Your task to perform on an android device: Searchfor good French restaurants Image 0: 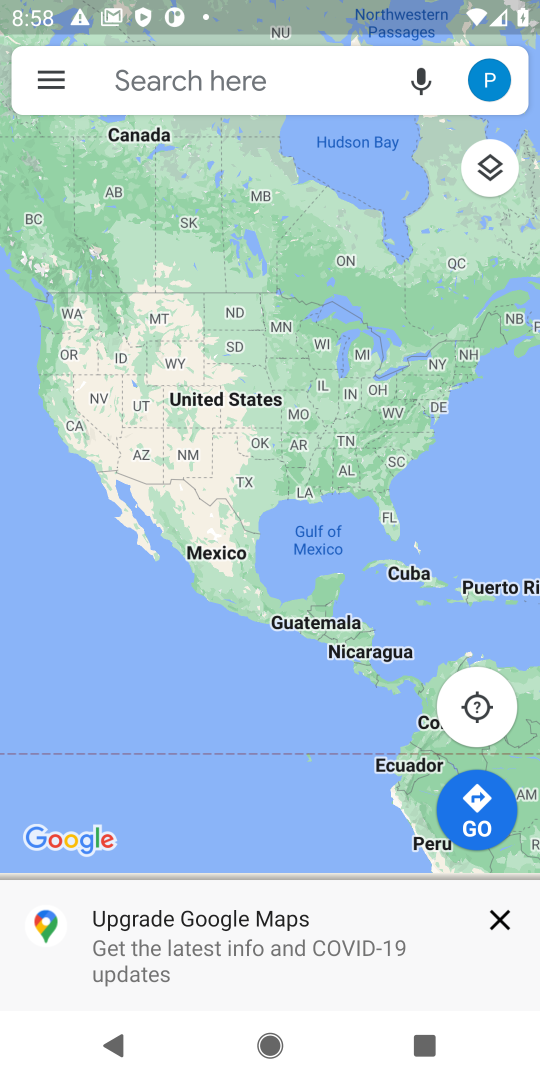
Step 0: press home button
Your task to perform on an android device: Searchfor good French restaurants Image 1: 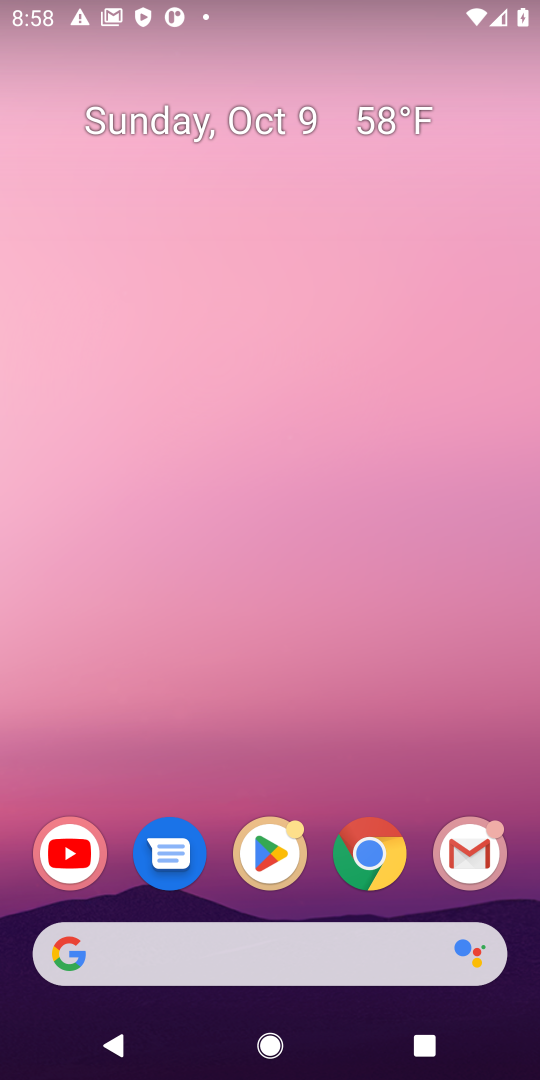
Step 1: click (362, 849)
Your task to perform on an android device: Searchfor good French restaurants Image 2: 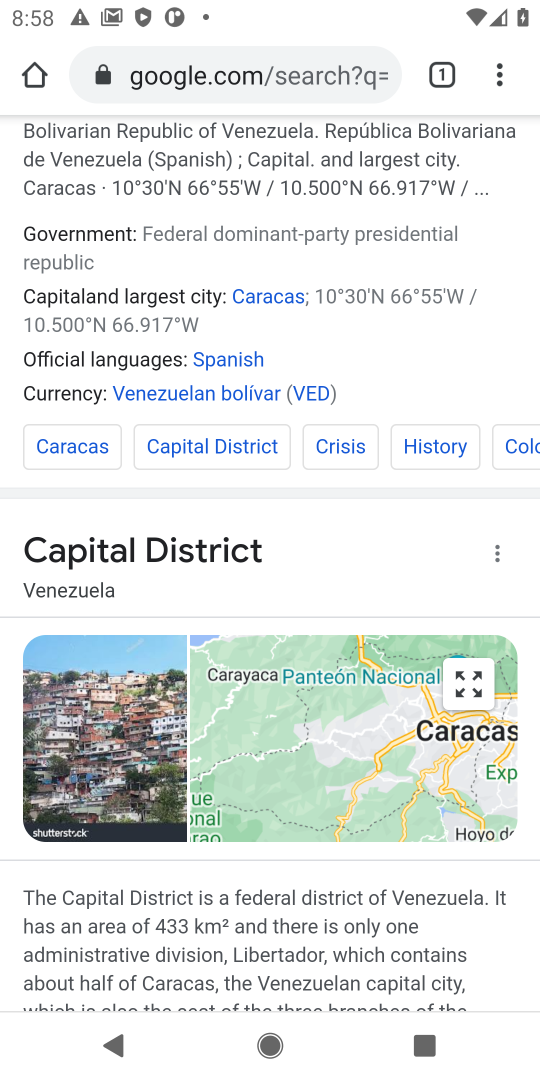
Step 2: click (199, 86)
Your task to perform on an android device: Searchfor good French restaurants Image 3: 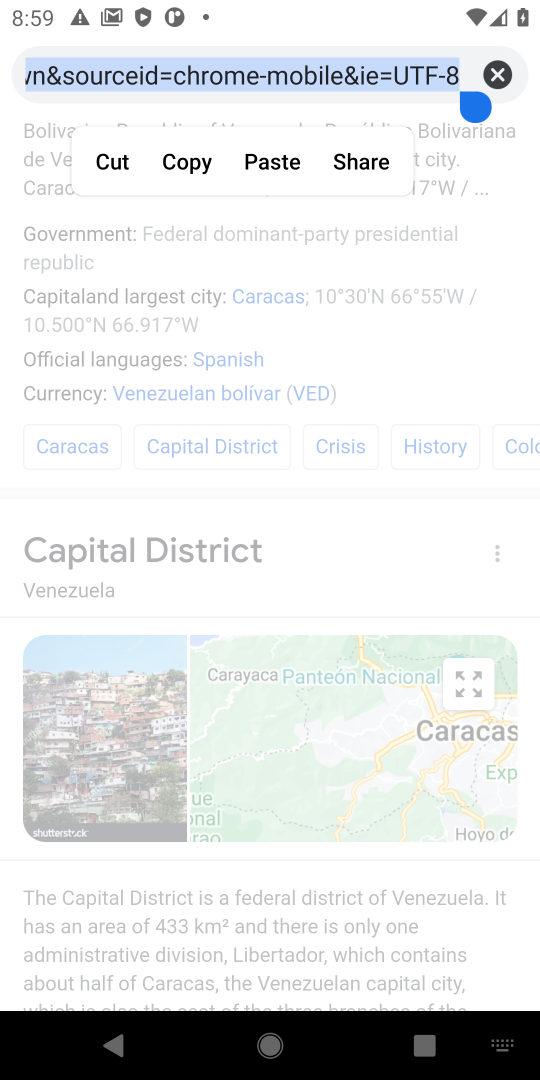
Step 3: type "good french restaurants"
Your task to perform on an android device: Searchfor good French restaurants Image 4: 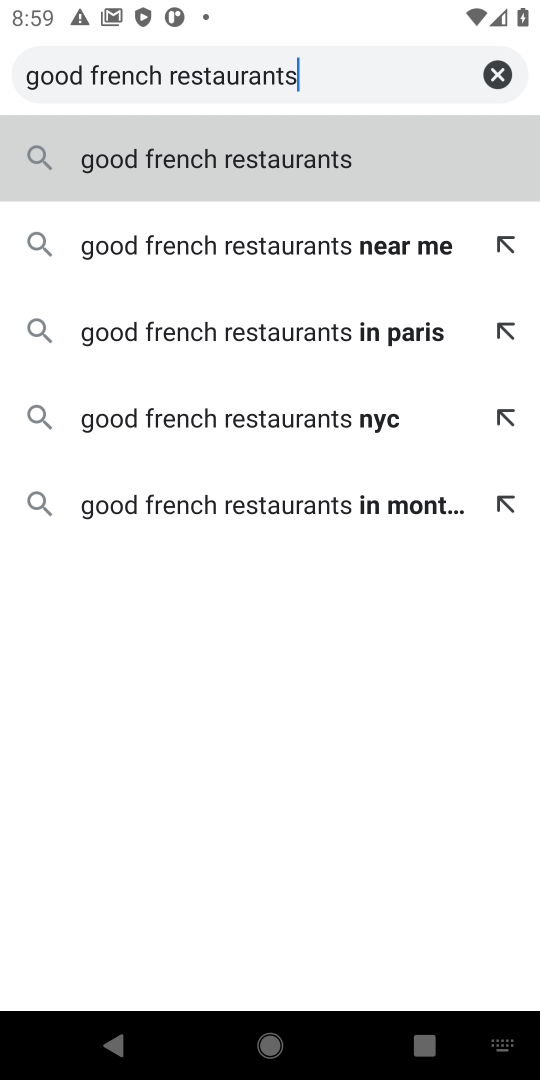
Step 4: click (429, 189)
Your task to perform on an android device: Searchfor good French restaurants Image 5: 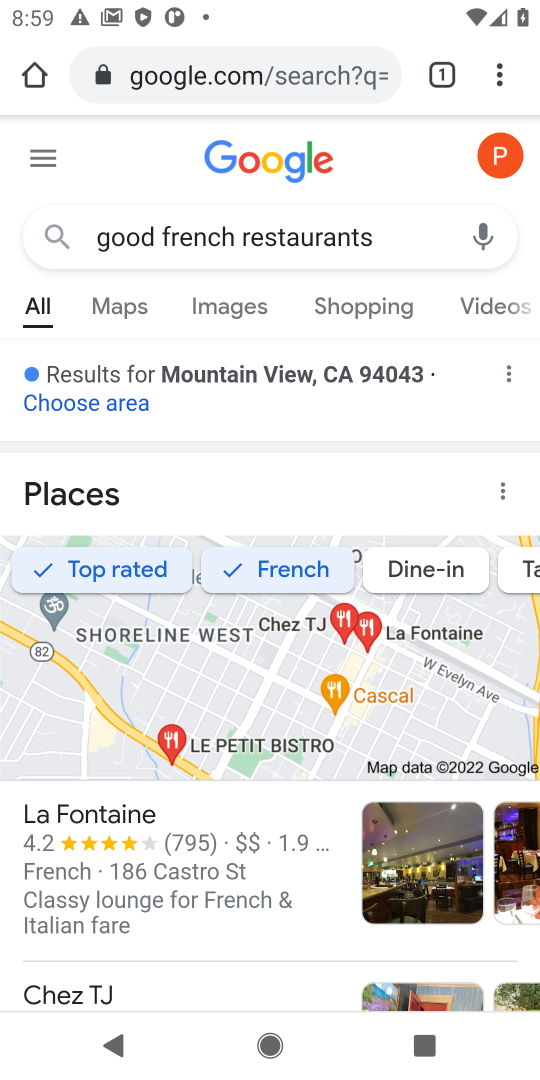
Step 5: drag from (349, 767) to (279, 430)
Your task to perform on an android device: Searchfor good French restaurants Image 6: 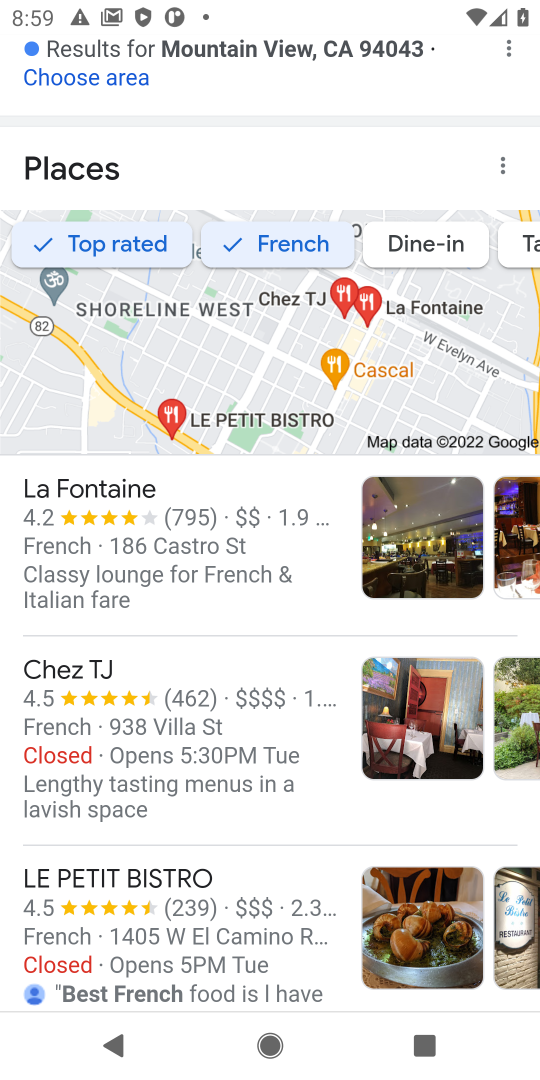
Step 6: drag from (310, 931) to (267, 555)
Your task to perform on an android device: Searchfor good French restaurants Image 7: 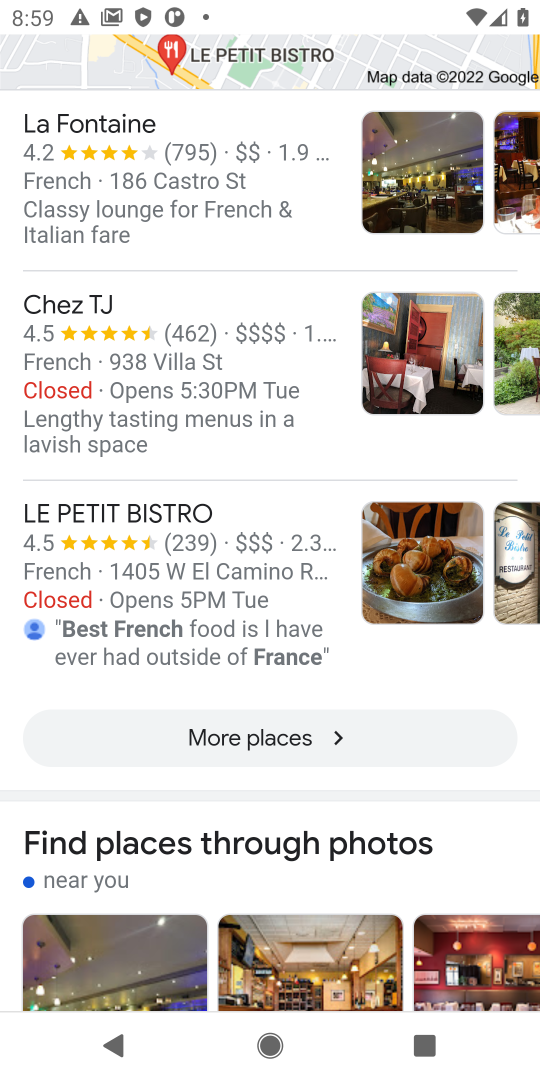
Step 7: click (303, 743)
Your task to perform on an android device: Searchfor good French restaurants Image 8: 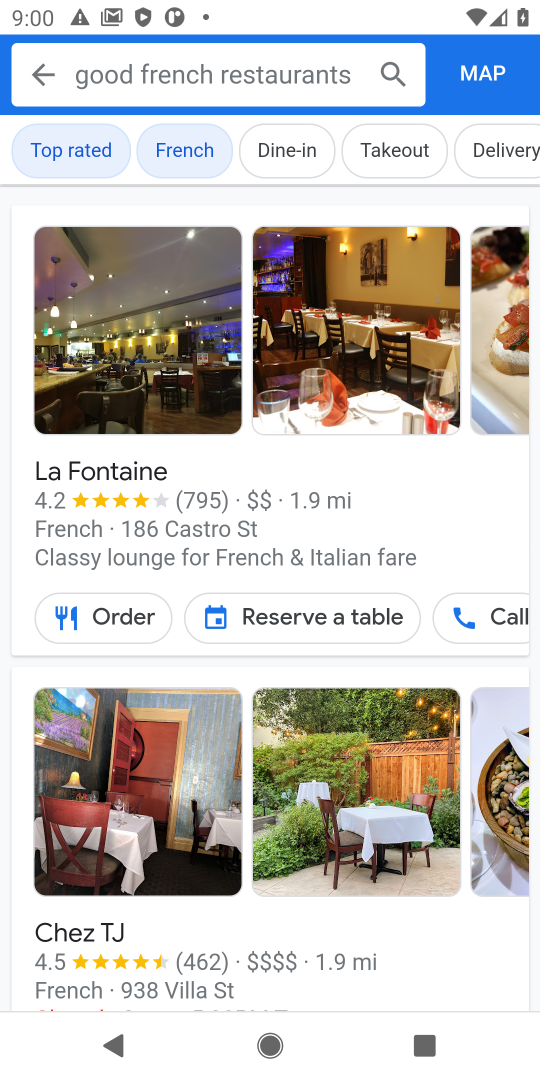
Step 8: task complete